Your task to perform on an android device: toggle notification dots Image 0: 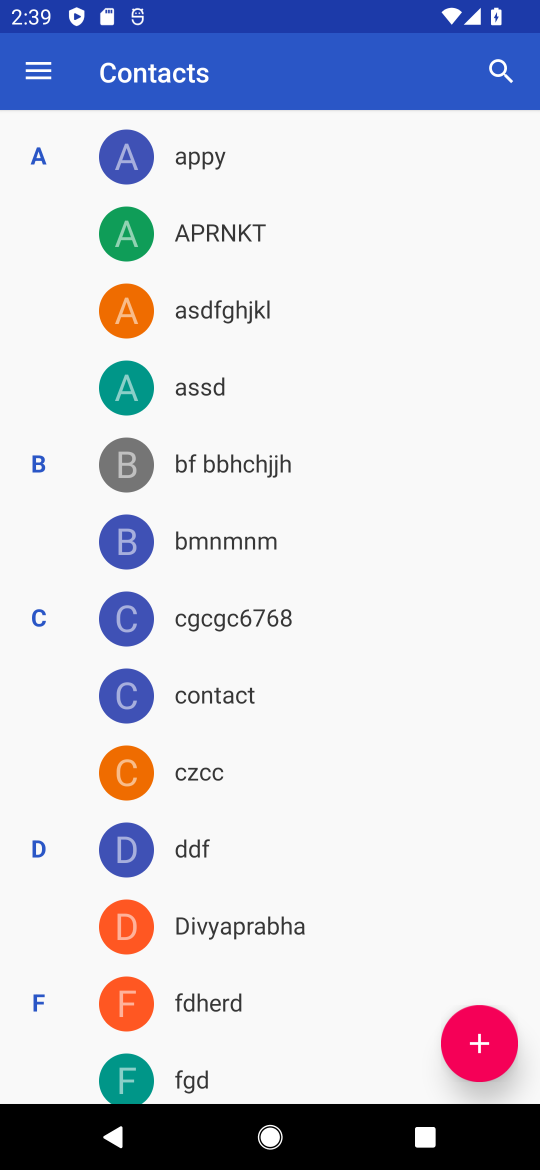
Step 0: press home button
Your task to perform on an android device: toggle notification dots Image 1: 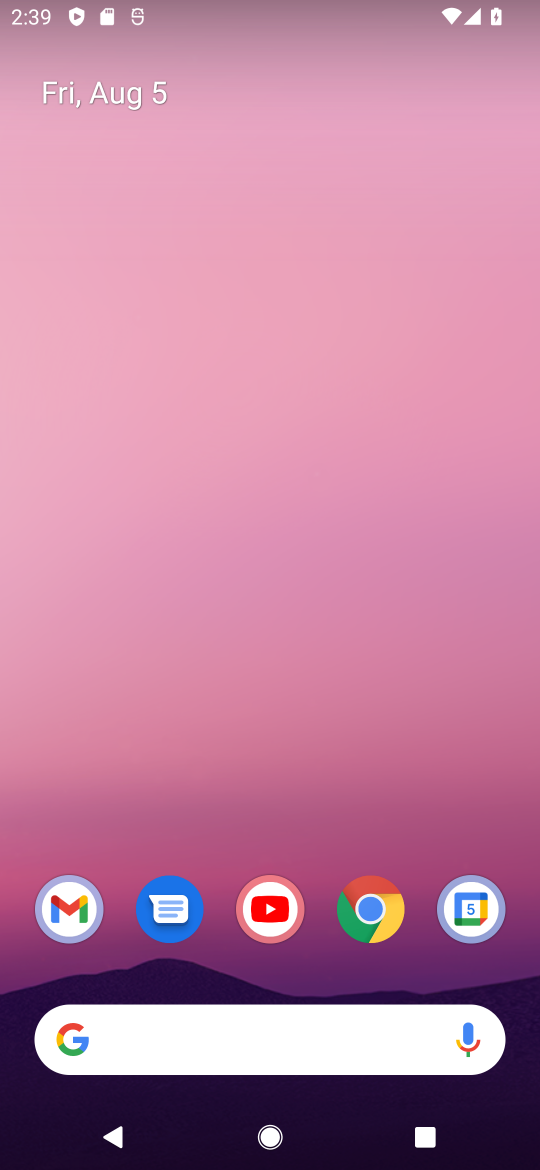
Step 1: drag from (313, 974) to (294, 90)
Your task to perform on an android device: toggle notification dots Image 2: 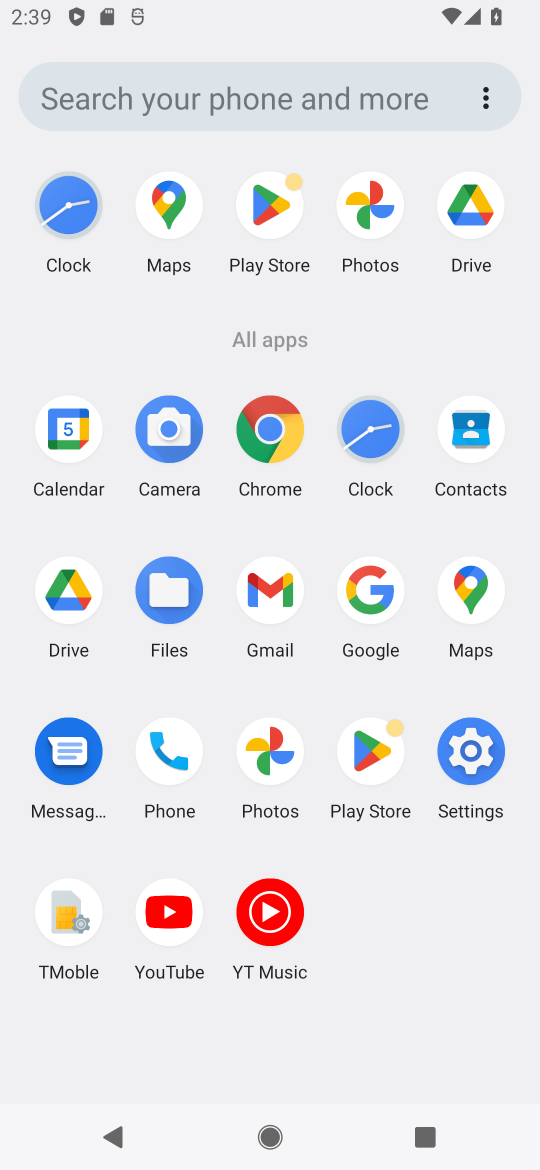
Step 2: click (457, 750)
Your task to perform on an android device: toggle notification dots Image 3: 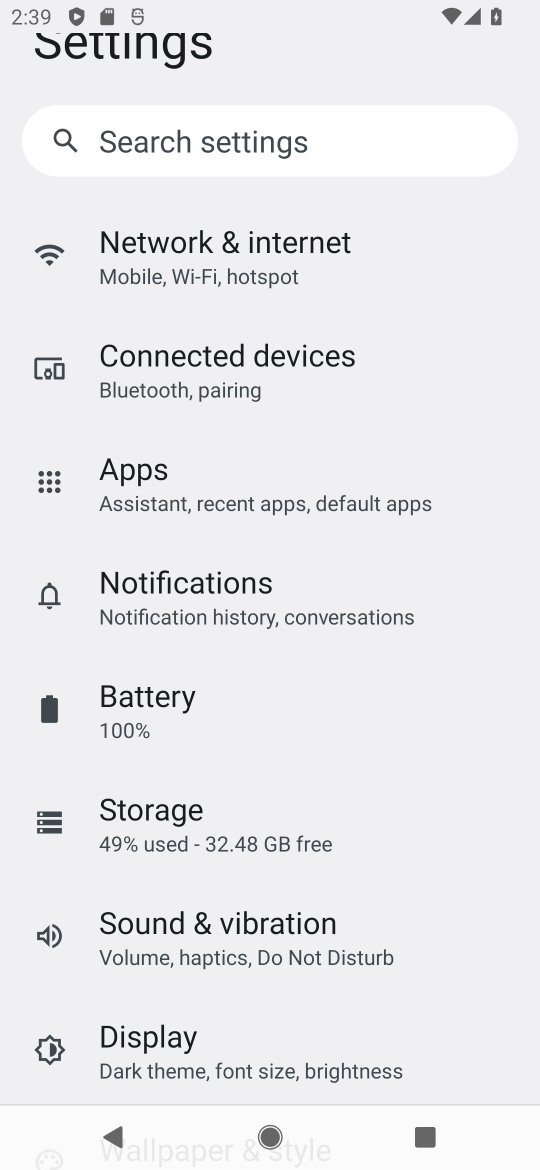
Step 3: click (289, 619)
Your task to perform on an android device: toggle notification dots Image 4: 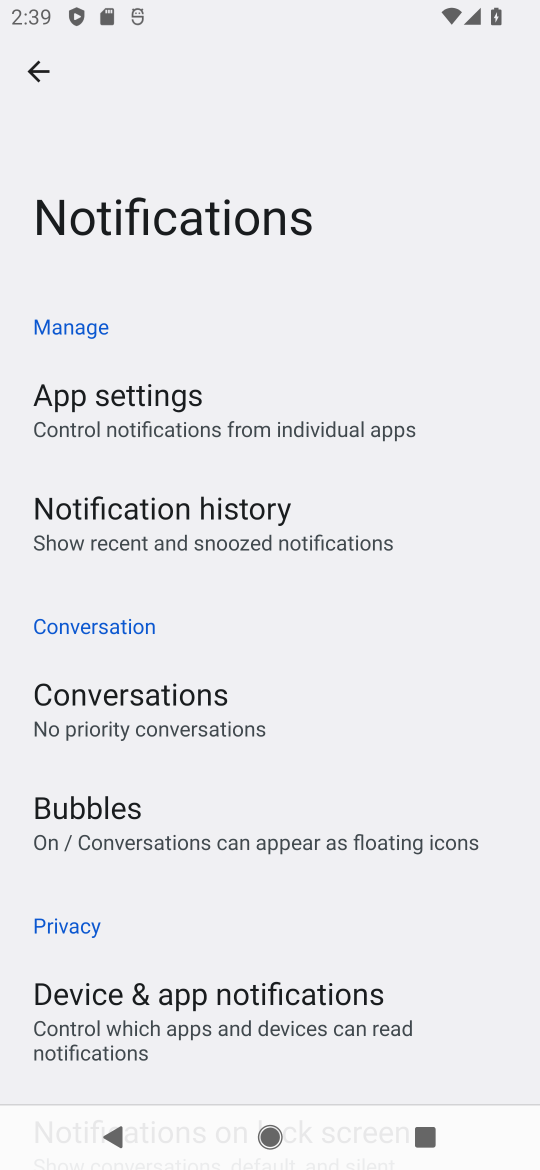
Step 4: task complete